Your task to perform on an android device: What's the weather going to be tomorrow? Image 0: 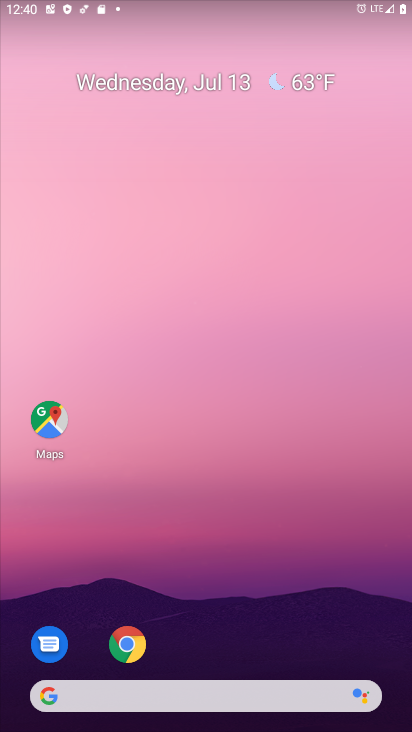
Step 0: drag from (241, 697) to (278, 187)
Your task to perform on an android device: What's the weather going to be tomorrow? Image 1: 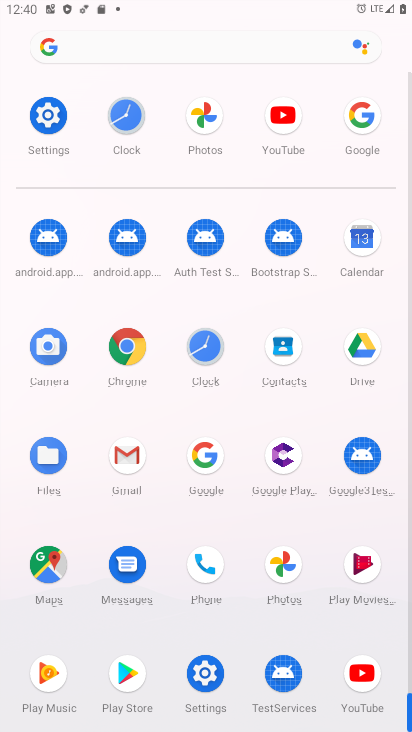
Step 1: click (364, 116)
Your task to perform on an android device: What's the weather going to be tomorrow? Image 2: 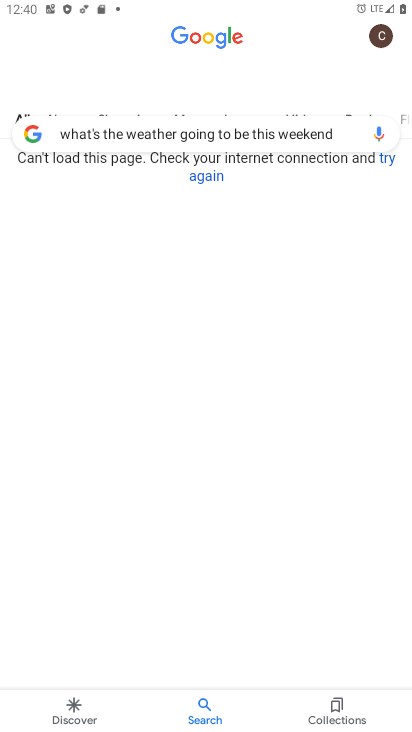
Step 2: click (327, 135)
Your task to perform on an android device: What's the weather going to be tomorrow? Image 3: 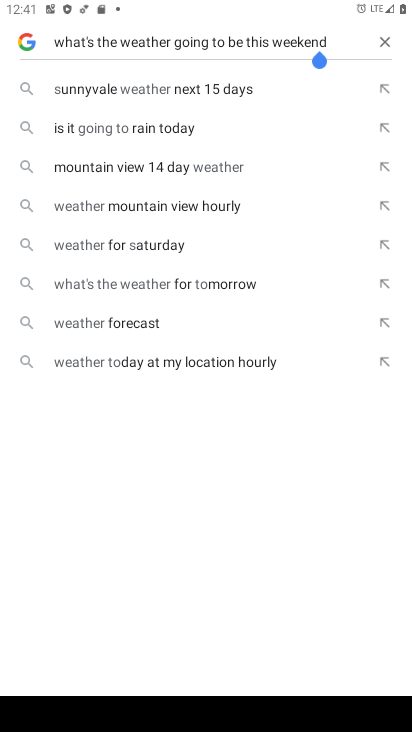
Step 3: click (385, 40)
Your task to perform on an android device: What's the weather going to be tomorrow? Image 4: 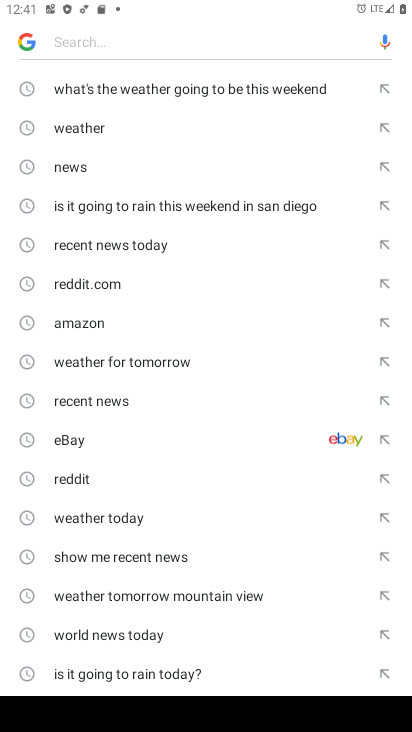
Step 4: type "What's the weather going to be tomorrow?"
Your task to perform on an android device: What's the weather going to be tomorrow? Image 5: 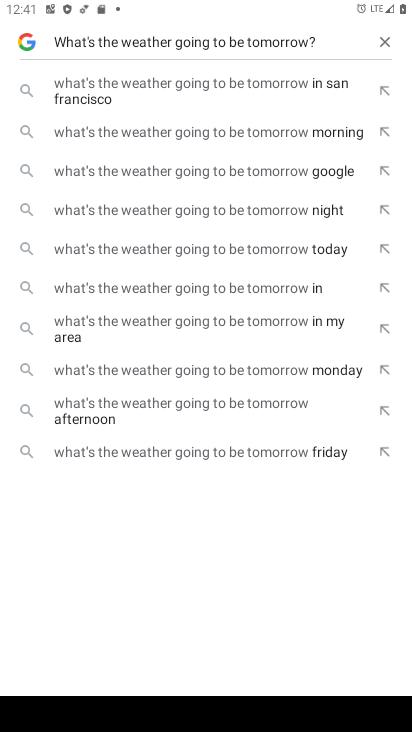
Step 5: click (276, 80)
Your task to perform on an android device: What's the weather going to be tomorrow? Image 6: 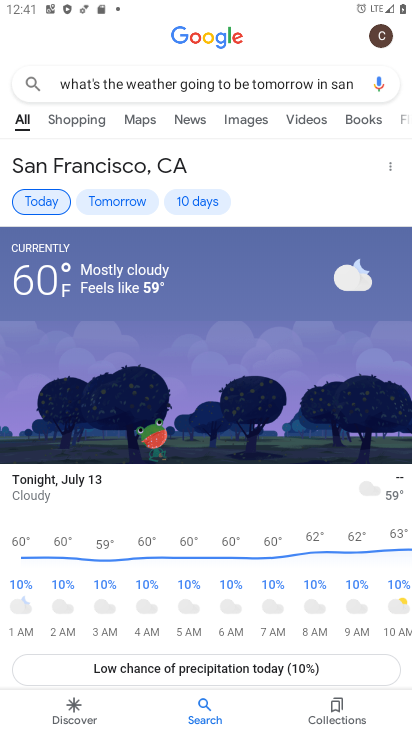
Step 6: click (117, 206)
Your task to perform on an android device: What's the weather going to be tomorrow? Image 7: 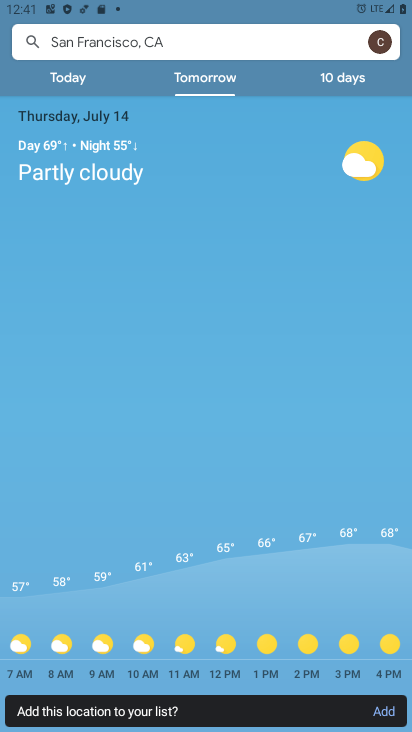
Step 7: task complete